Your task to perform on an android device: open app "Life360: Find Family & Friends" (install if not already installed) Image 0: 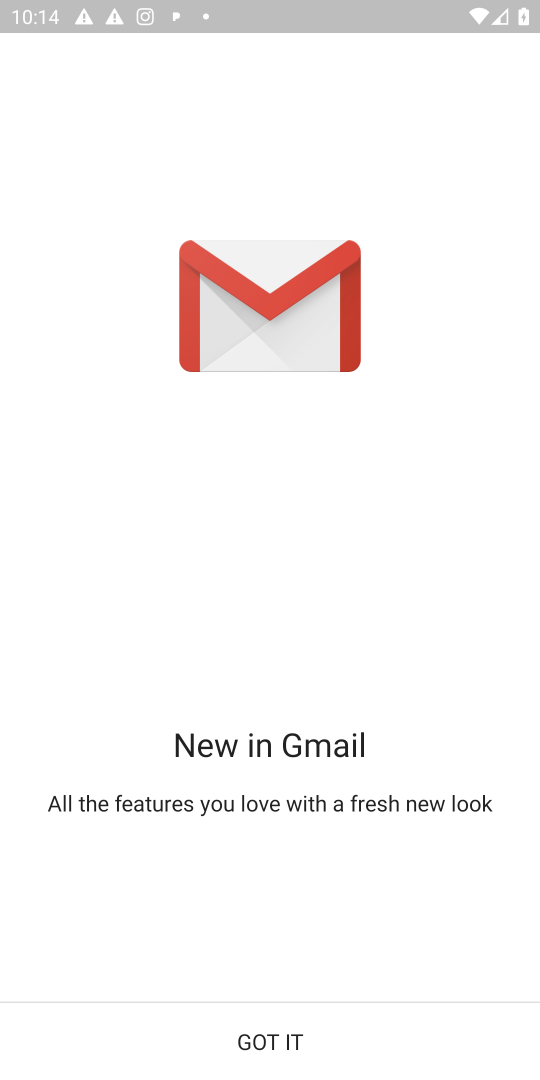
Step 0: press home button
Your task to perform on an android device: open app "Life360: Find Family & Friends" (install if not already installed) Image 1: 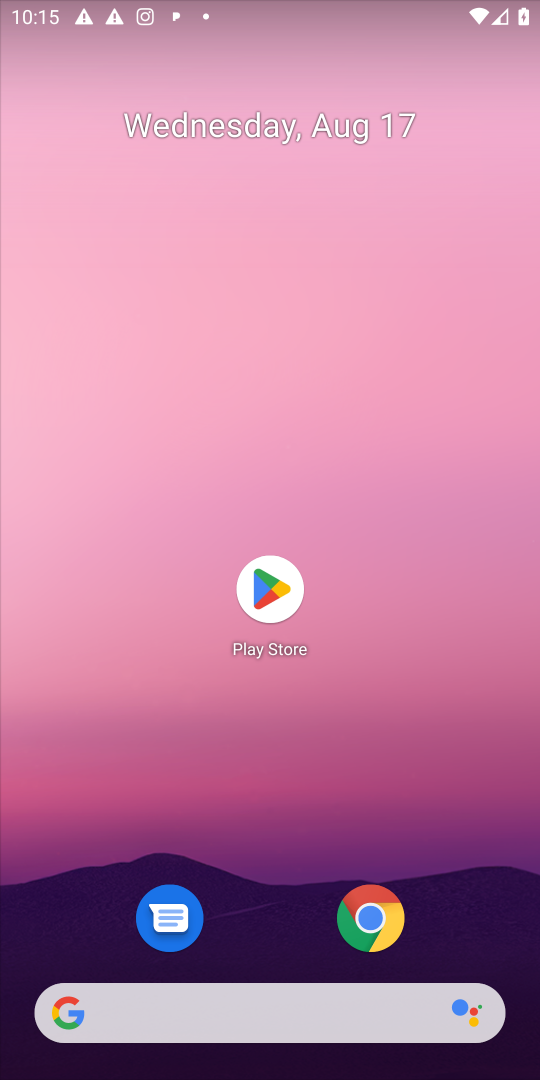
Step 1: click (268, 589)
Your task to perform on an android device: open app "Life360: Find Family & Friends" (install if not already installed) Image 2: 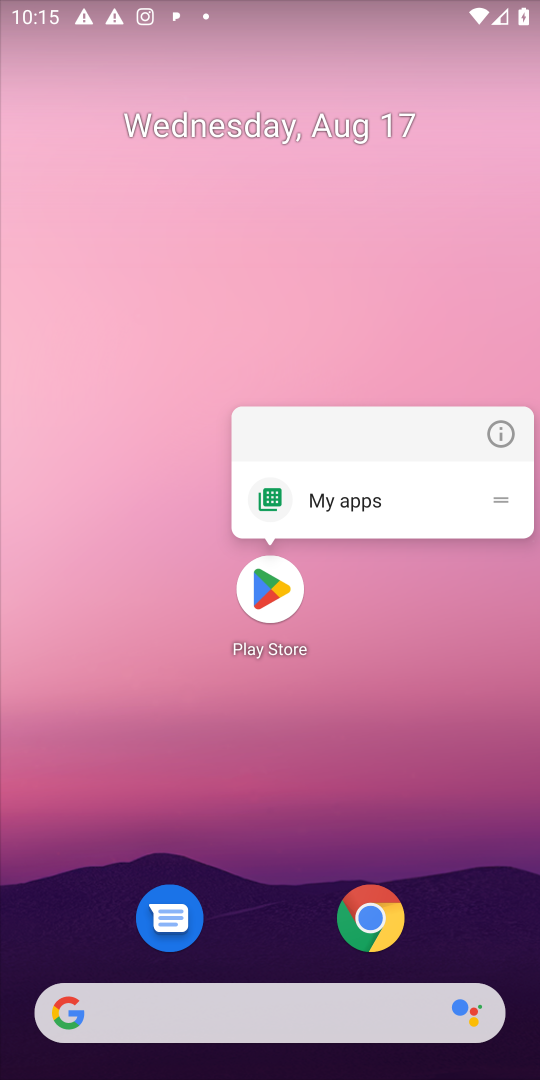
Step 2: click (268, 590)
Your task to perform on an android device: open app "Life360: Find Family & Friends" (install if not already installed) Image 3: 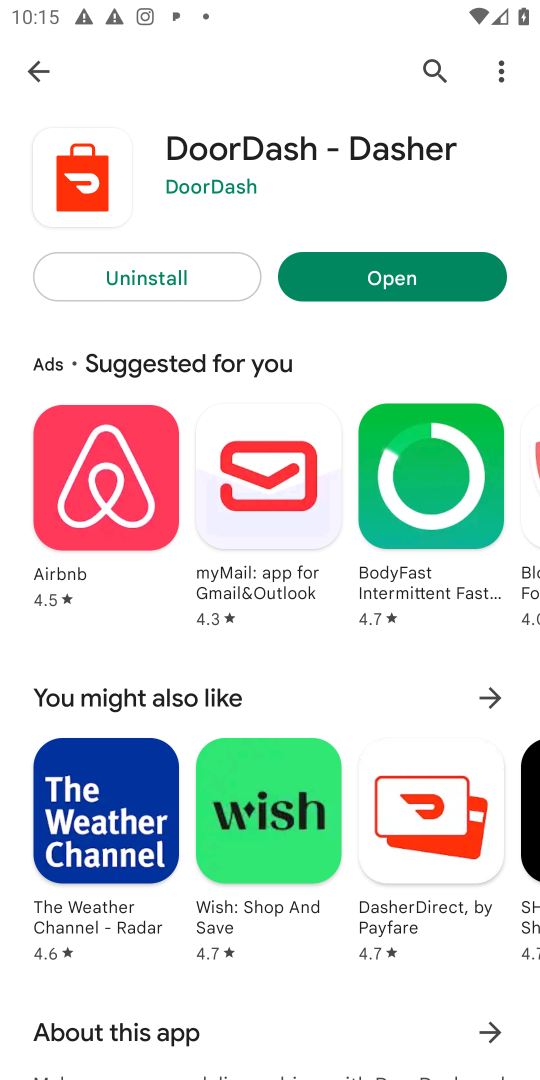
Step 3: click (426, 67)
Your task to perform on an android device: open app "Life360: Find Family & Friends" (install if not already installed) Image 4: 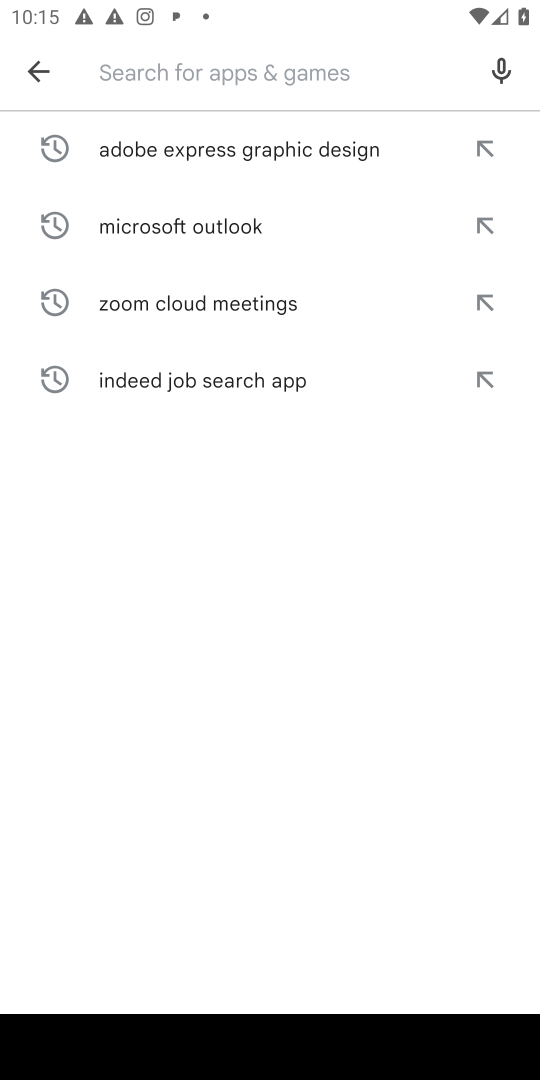
Step 4: type "Life360: Find Family & Friends"
Your task to perform on an android device: open app "Life360: Find Family & Friends" (install if not already installed) Image 5: 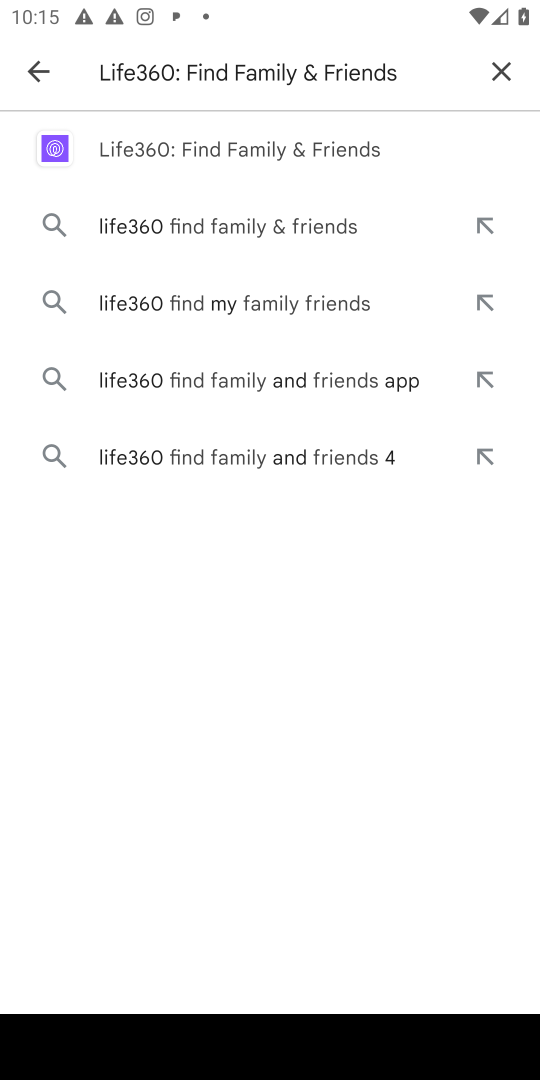
Step 5: click (228, 153)
Your task to perform on an android device: open app "Life360: Find Family & Friends" (install if not already installed) Image 6: 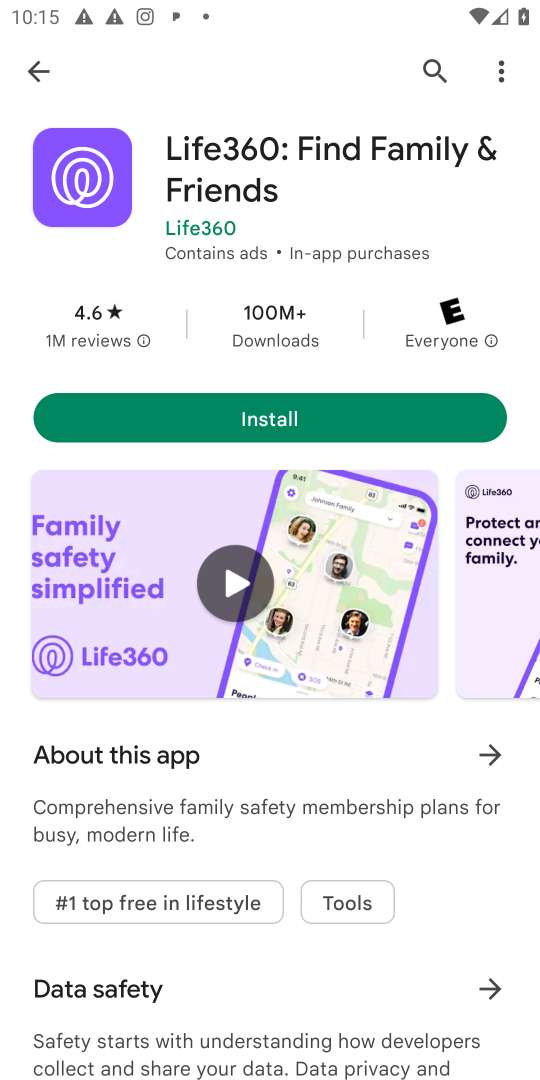
Step 6: click (282, 418)
Your task to perform on an android device: open app "Life360: Find Family & Friends" (install if not already installed) Image 7: 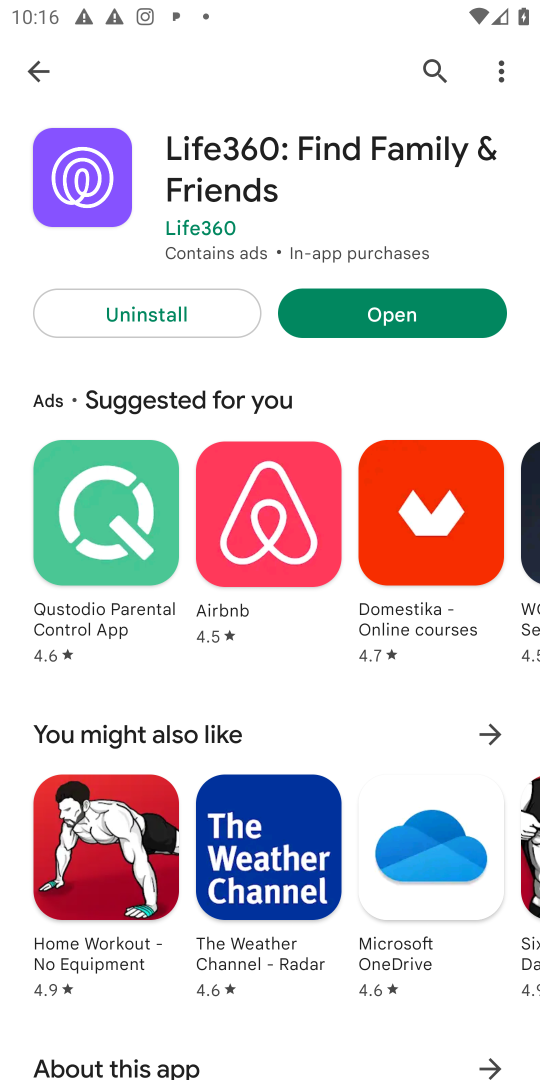
Step 7: click (372, 325)
Your task to perform on an android device: open app "Life360: Find Family & Friends" (install if not already installed) Image 8: 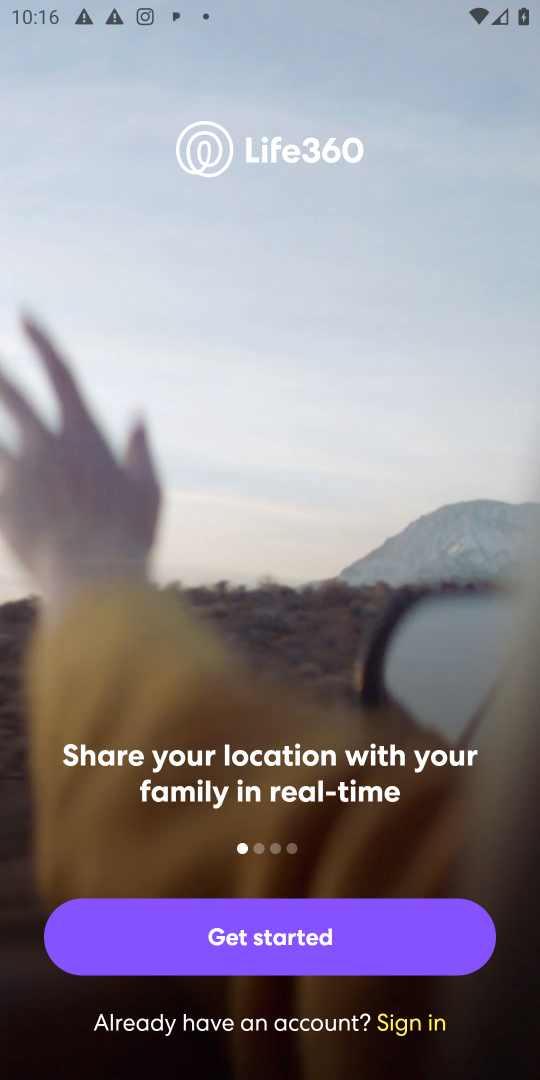
Step 8: task complete